Your task to perform on an android device: Open Wikipedia Image 0: 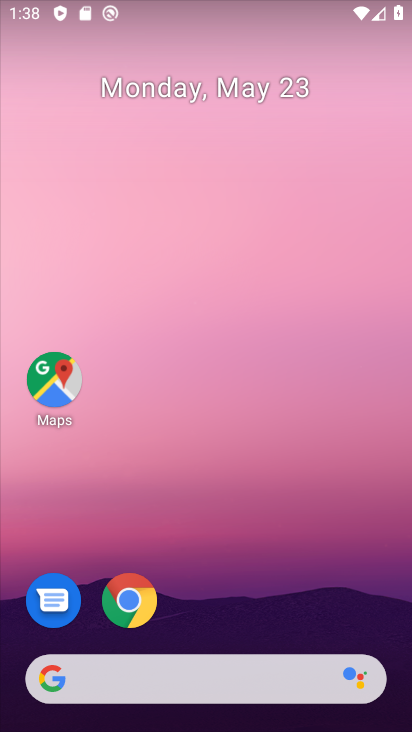
Step 0: drag from (328, 616) to (329, 73)
Your task to perform on an android device: Open Wikipedia Image 1: 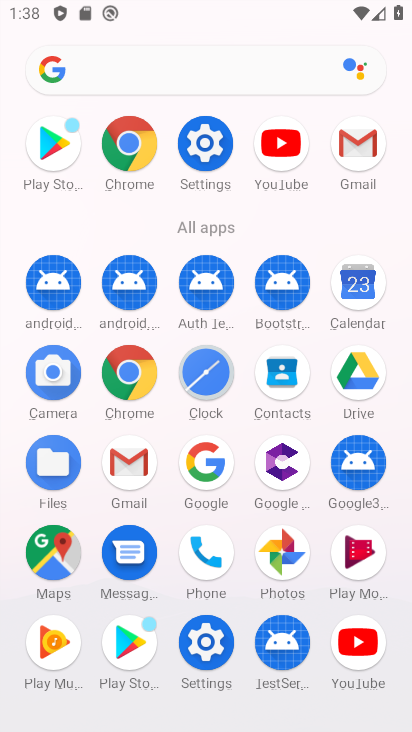
Step 1: click (141, 131)
Your task to perform on an android device: Open Wikipedia Image 2: 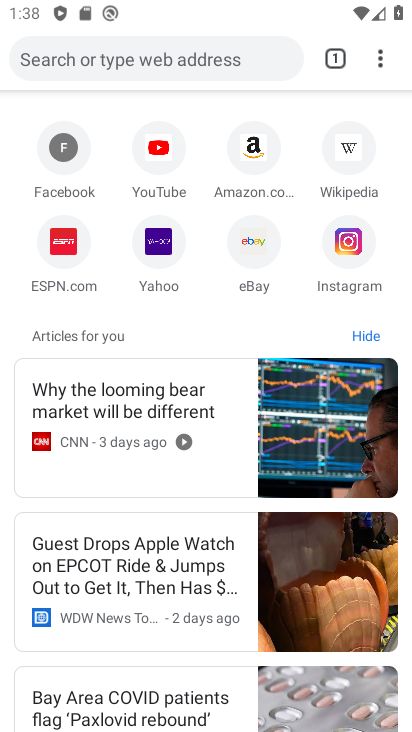
Step 2: click (344, 149)
Your task to perform on an android device: Open Wikipedia Image 3: 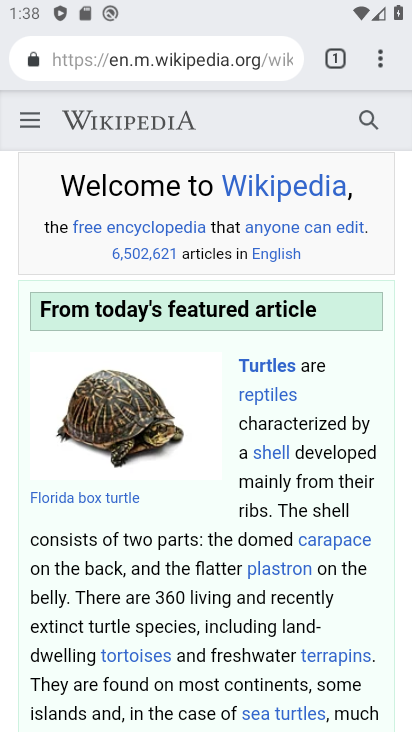
Step 3: task complete